Your task to perform on an android device: open app "Adobe Acrobat Reader: Edit PDF" (install if not already installed) and go to login screen Image 0: 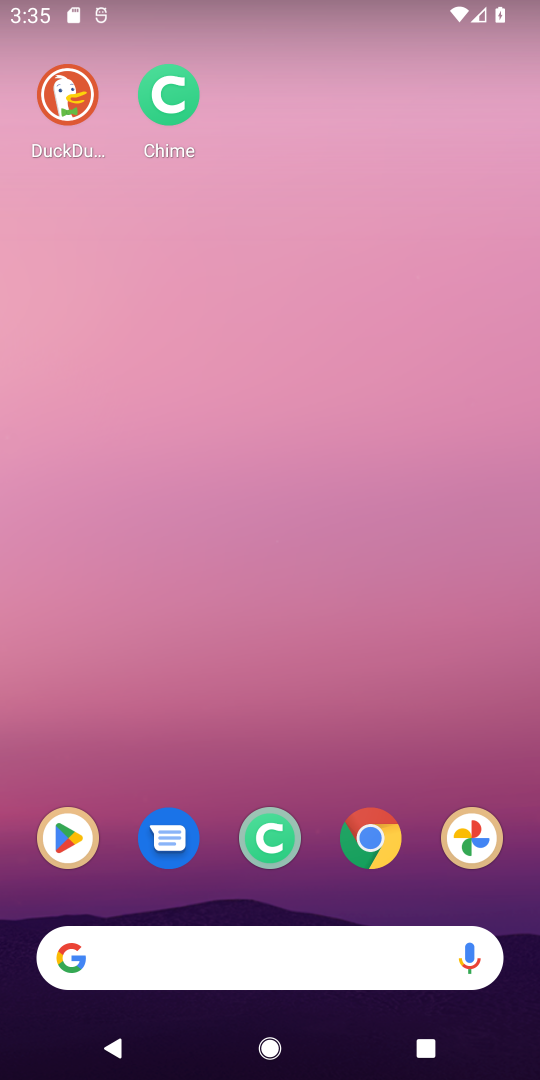
Step 0: click (64, 828)
Your task to perform on an android device: open app "Adobe Acrobat Reader: Edit PDF" (install if not already installed) and go to login screen Image 1: 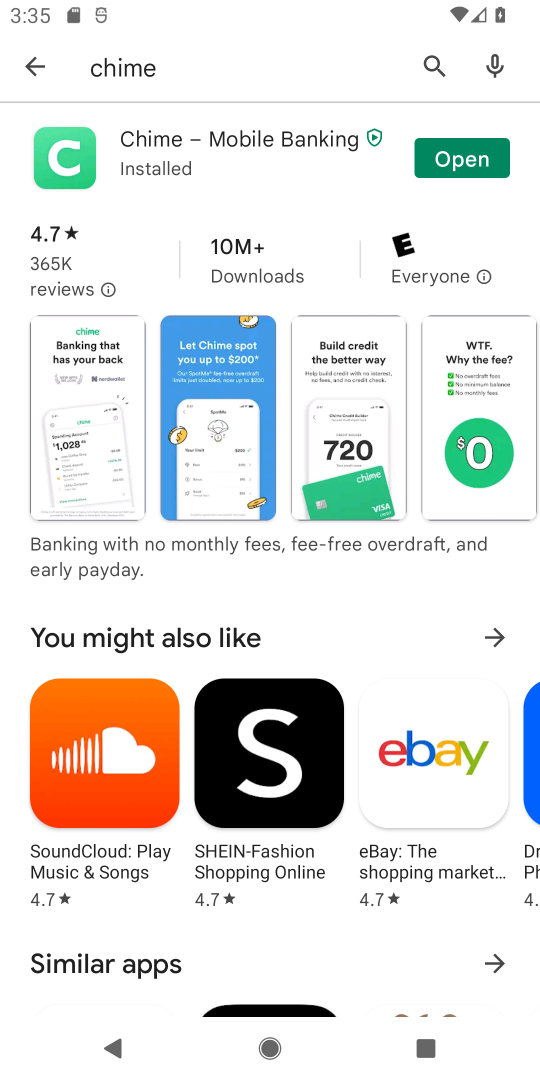
Step 1: click (428, 60)
Your task to perform on an android device: open app "Adobe Acrobat Reader: Edit PDF" (install if not already installed) and go to login screen Image 2: 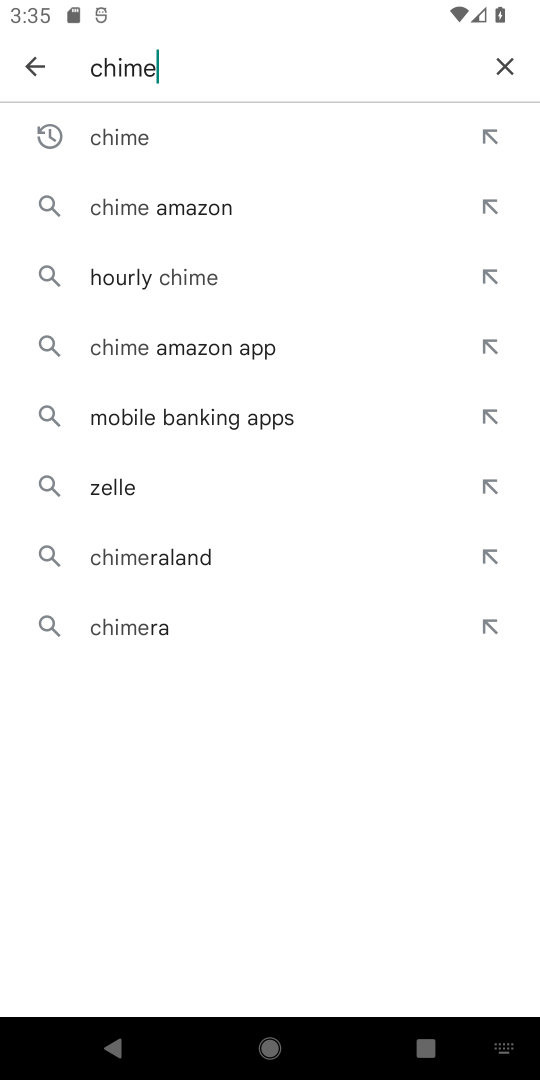
Step 2: click (513, 68)
Your task to perform on an android device: open app "Adobe Acrobat Reader: Edit PDF" (install if not already installed) and go to login screen Image 3: 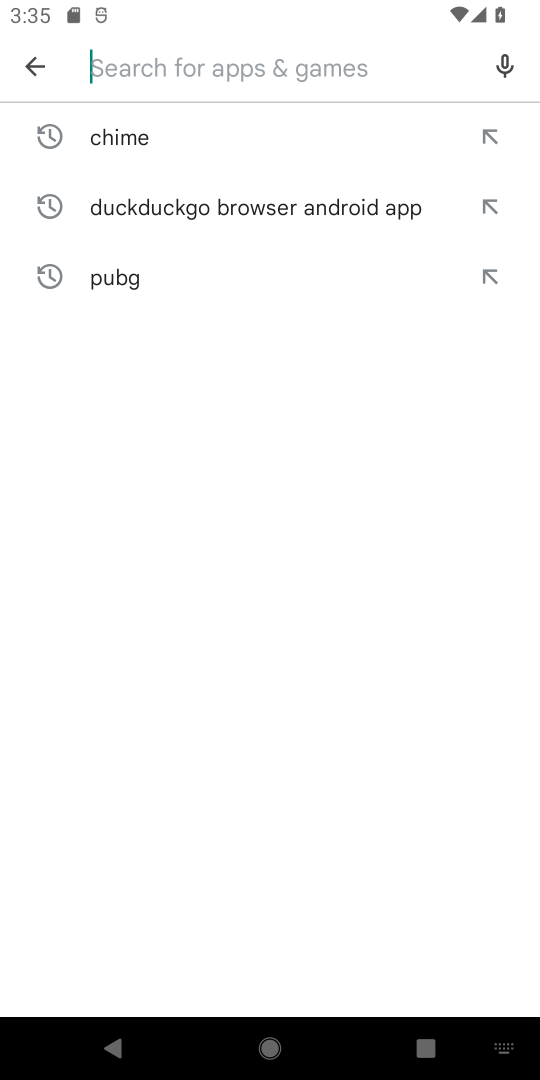
Step 3: type "adobe acrobat"
Your task to perform on an android device: open app "Adobe Acrobat Reader: Edit PDF" (install if not already installed) and go to login screen Image 4: 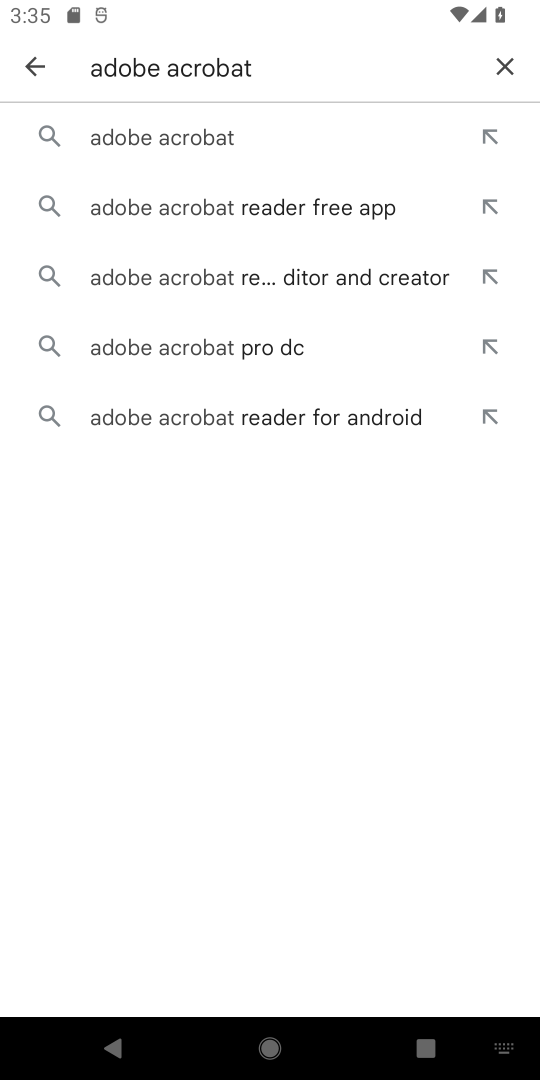
Step 4: click (228, 128)
Your task to perform on an android device: open app "Adobe Acrobat Reader: Edit PDF" (install if not already installed) and go to login screen Image 5: 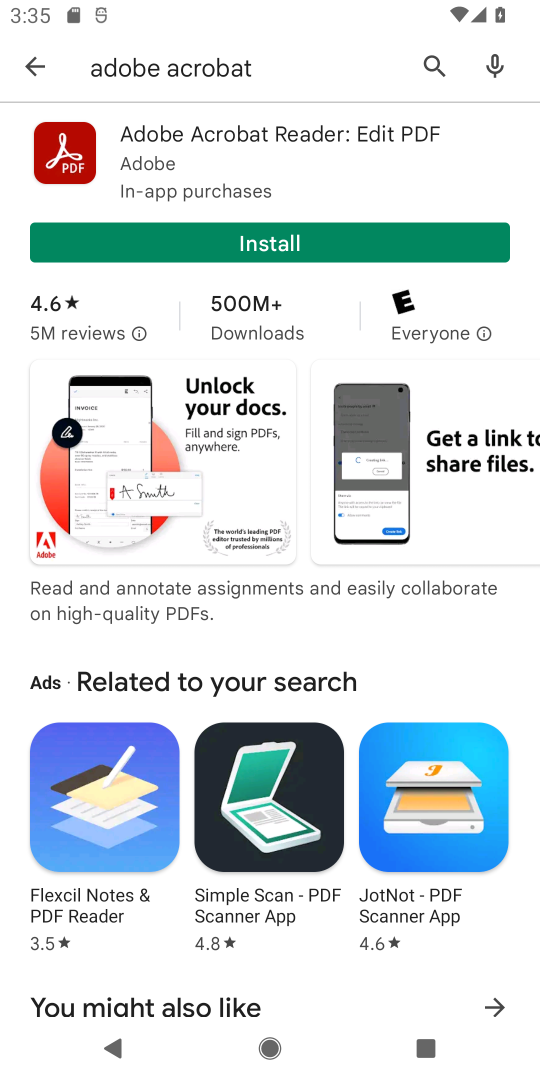
Step 5: click (257, 241)
Your task to perform on an android device: open app "Adobe Acrobat Reader: Edit PDF" (install if not already installed) and go to login screen Image 6: 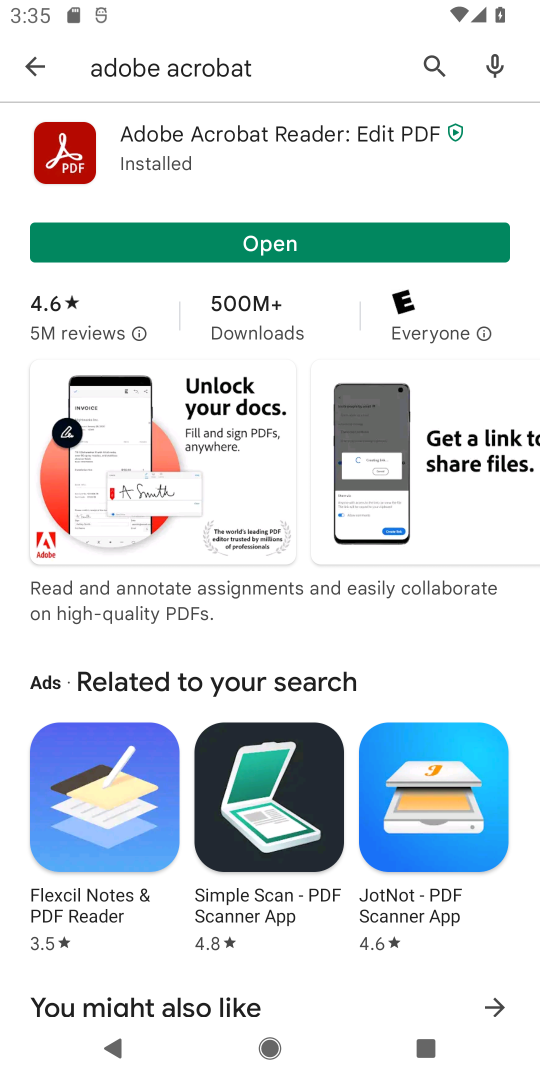
Step 6: click (284, 243)
Your task to perform on an android device: open app "Adobe Acrobat Reader: Edit PDF" (install if not already installed) and go to login screen Image 7: 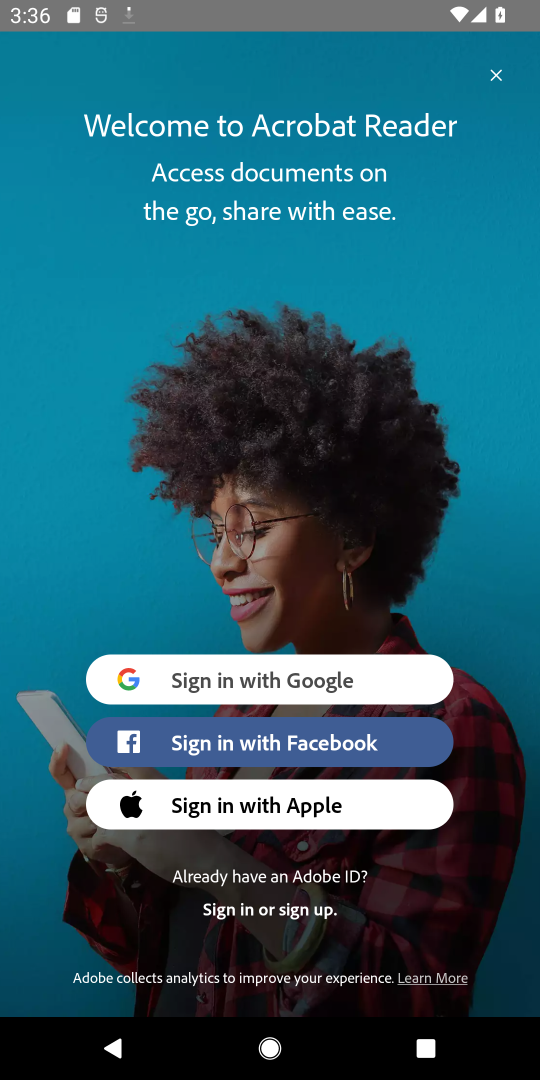
Step 7: task complete